Your task to perform on an android device: Search for corsair k70 on costco.com, select the first entry, add it to the cart, then select checkout. Image 0: 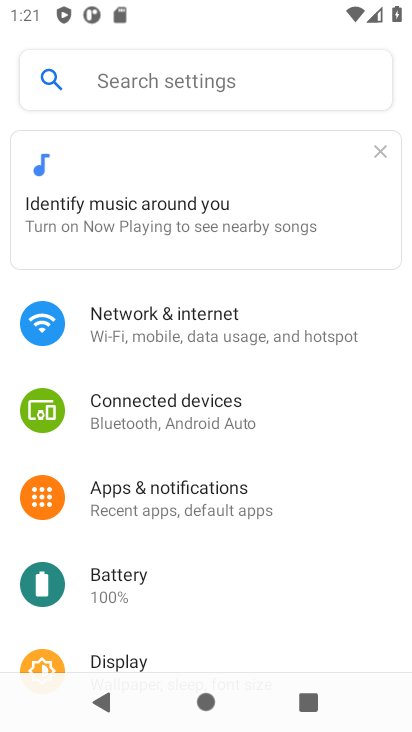
Step 0: press home button
Your task to perform on an android device: Search for corsair k70 on costco.com, select the first entry, add it to the cart, then select checkout. Image 1: 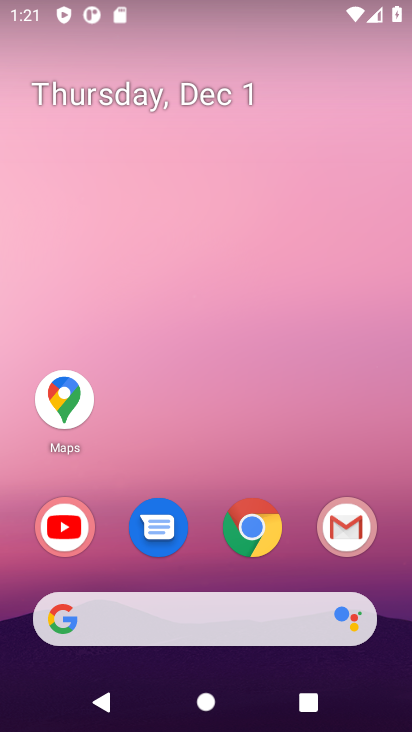
Step 1: click (257, 541)
Your task to perform on an android device: Search for corsair k70 on costco.com, select the first entry, add it to the cart, then select checkout. Image 2: 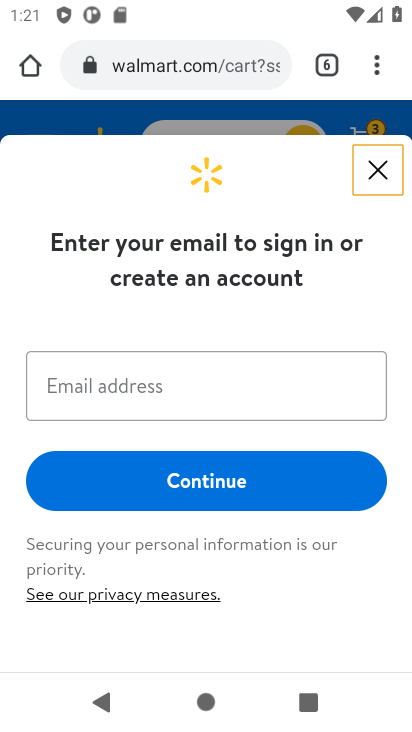
Step 2: click (200, 70)
Your task to perform on an android device: Search for corsair k70 on costco.com, select the first entry, add it to the cart, then select checkout. Image 3: 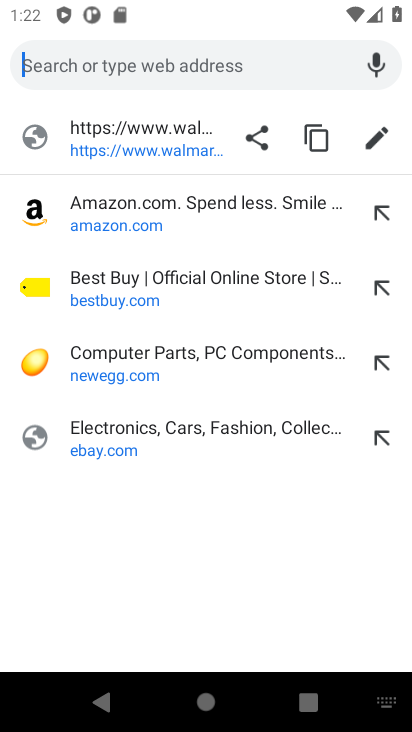
Step 3: type "costco.com"
Your task to perform on an android device: Search for corsair k70 on costco.com, select the first entry, add it to the cart, then select checkout. Image 4: 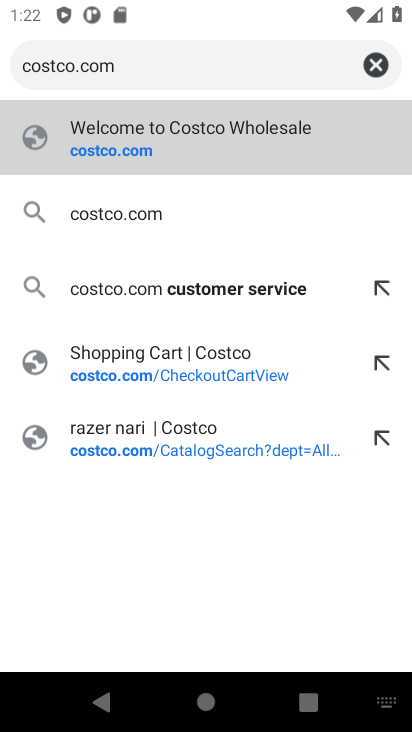
Step 4: click (94, 140)
Your task to perform on an android device: Search for corsair k70 on costco.com, select the first entry, add it to the cart, then select checkout. Image 5: 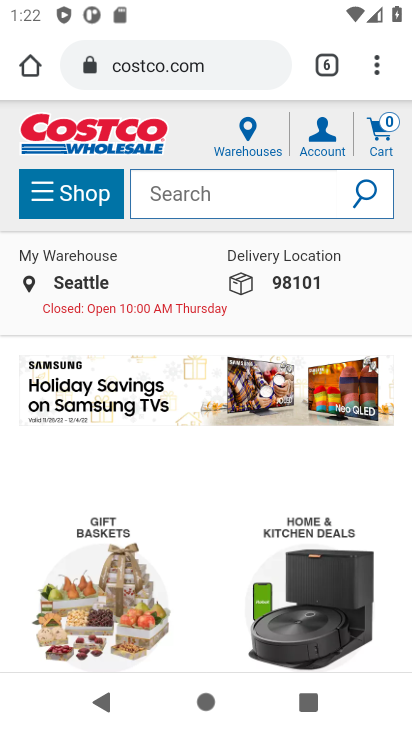
Step 5: click (190, 195)
Your task to perform on an android device: Search for corsair k70 on costco.com, select the first entry, add it to the cart, then select checkout. Image 6: 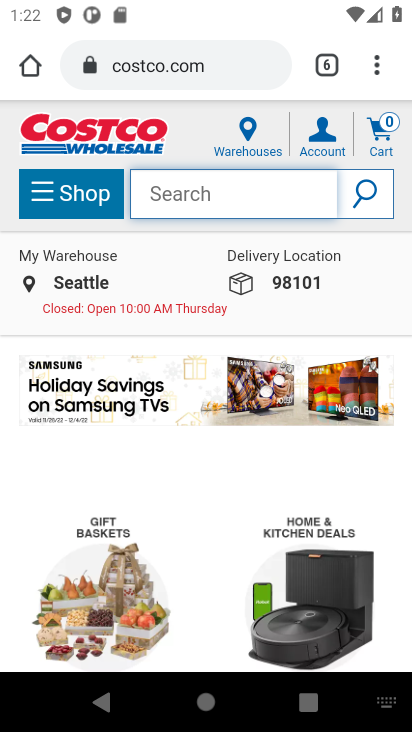
Step 6: type " corsair k70"
Your task to perform on an android device: Search for corsair k70 on costco.com, select the first entry, add it to the cart, then select checkout. Image 7: 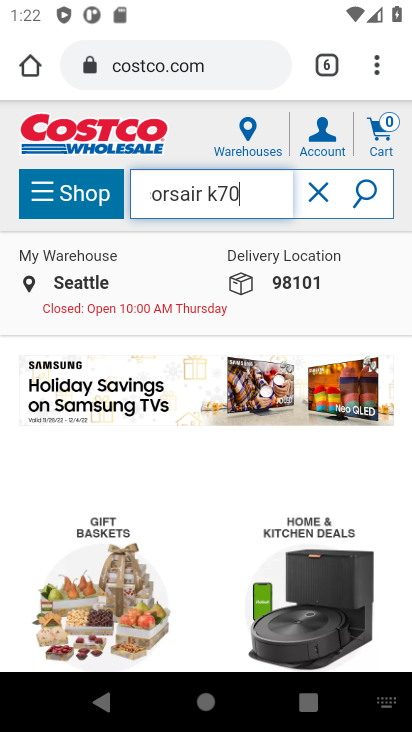
Step 7: drag from (252, 483) to (253, 261)
Your task to perform on an android device: Search for corsair k70 on costco.com, select the first entry, add it to the cart, then select checkout. Image 8: 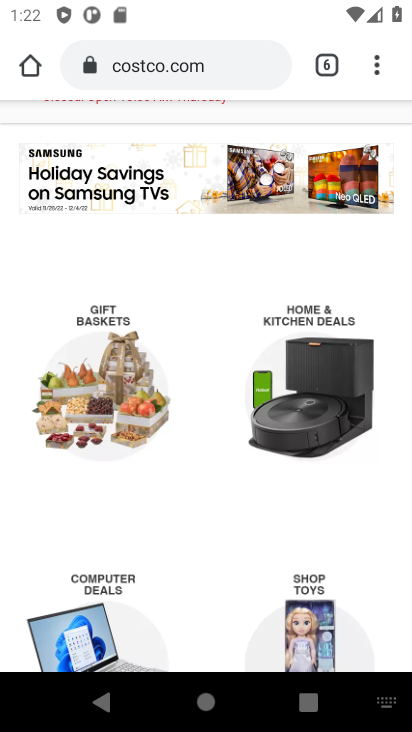
Step 8: drag from (177, 539) to (201, 198)
Your task to perform on an android device: Search for corsair k70 on costco.com, select the first entry, add it to the cart, then select checkout. Image 9: 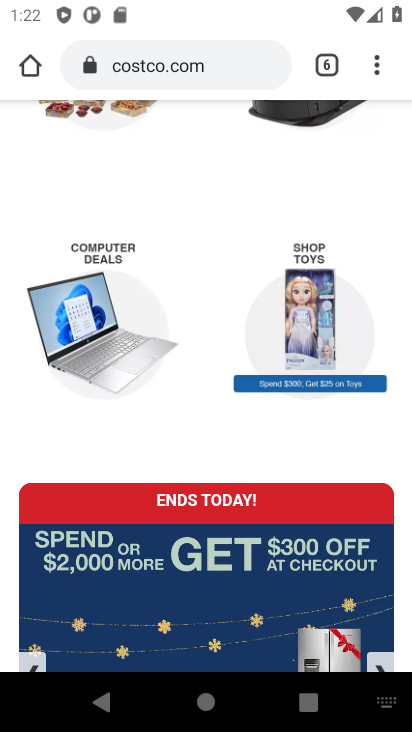
Step 9: drag from (220, 224) to (187, 522)
Your task to perform on an android device: Search for corsair k70 on costco.com, select the first entry, add it to the cart, then select checkout. Image 10: 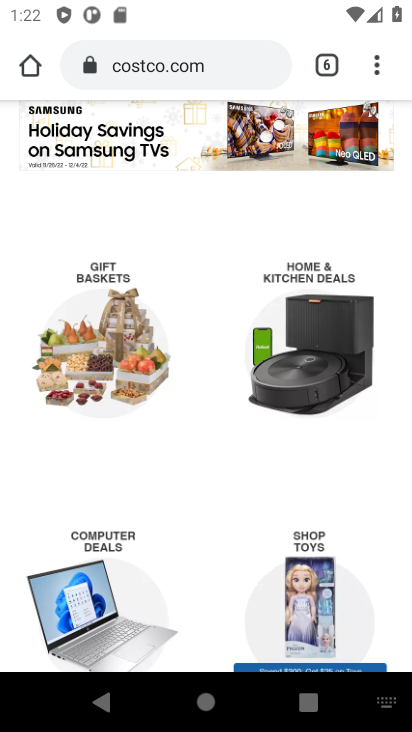
Step 10: drag from (383, 225) to (390, 429)
Your task to perform on an android device: Search for corsair k70 on costco.com, select the first entry, add it to the cart, then select checkout. Image 11: 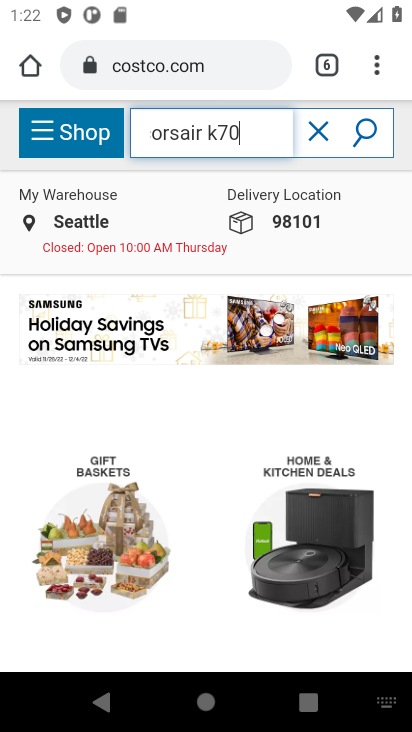
Step 11: click (366, 129)
Your task to perform on an android device: Search for corsair k70 on costco.com, select the first entry, add it to the cart, then select checkout. Image 12: 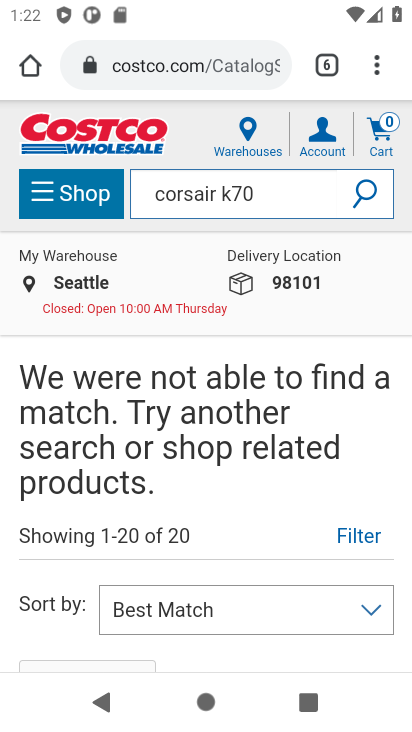
Step 12: task complete